Your task to perform on an android device: snooze an email in the gmail app Image 0: 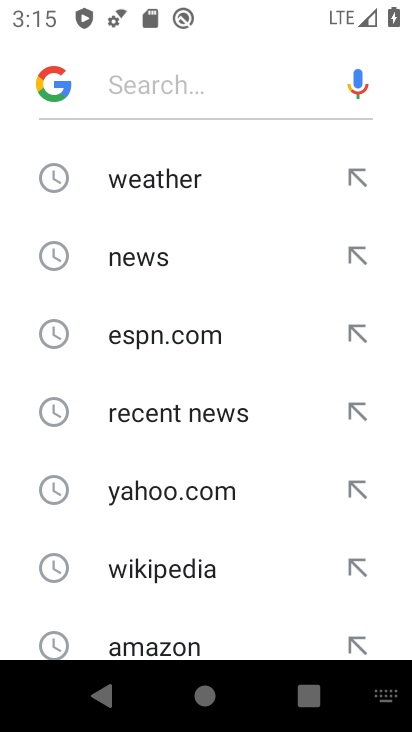
Step 0: press home button
Your task to perform on an android device: snooze an email in the gmail app Image 1: 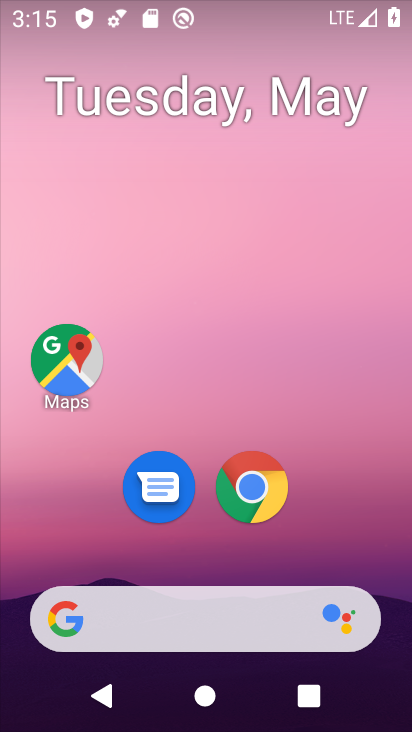
Step 1: drag from (350, 502) to (313, 107)
Your task to perform on an android device: snooze an email in the gmail app Image 2: 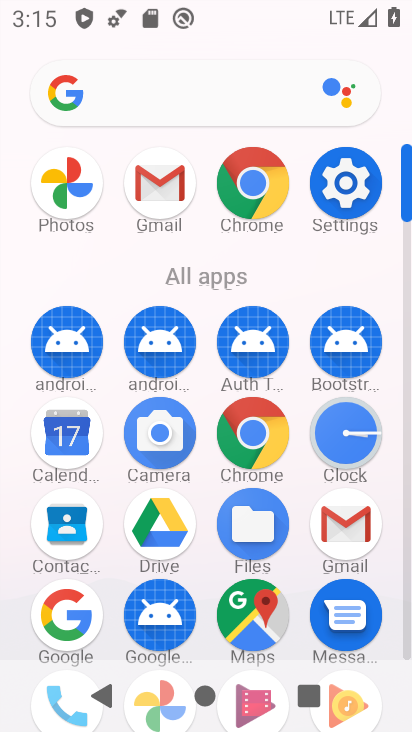
Step 2: click (168, 188)
Your task to perform on an android device: snooze an email in the gmail app Image 3: 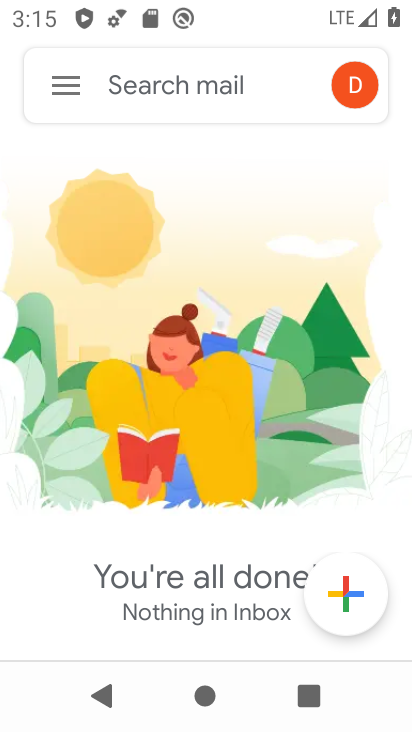
Step 3: click (64, 78)
Your task to perform on an android device: snooze an email in the gmail app Image 4: 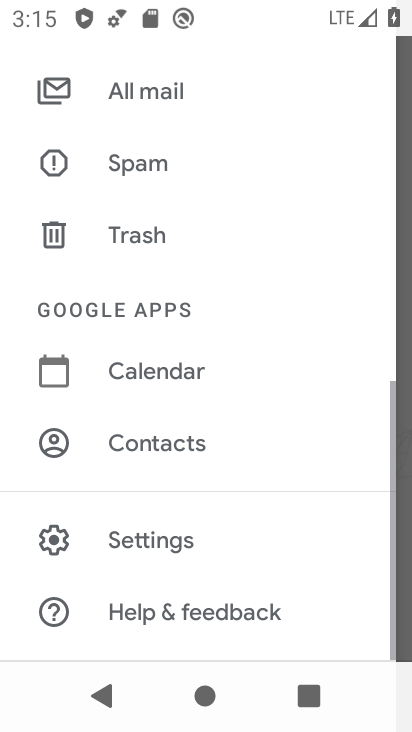
Step 4: drag from (251, 548) to (315, 571)
Your task to perform on an android device: snooze an email in the gmail app Image 5: 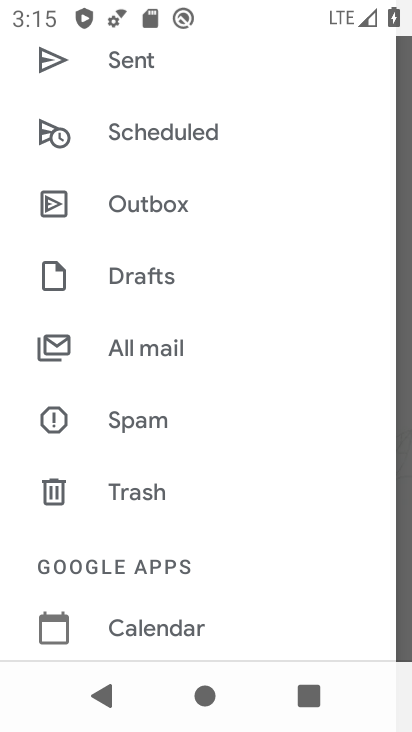
Step 5: drag from (276, 324) to (258, 512)
Your task to perform on an android device: snooze an email in the gmail app Image 6: 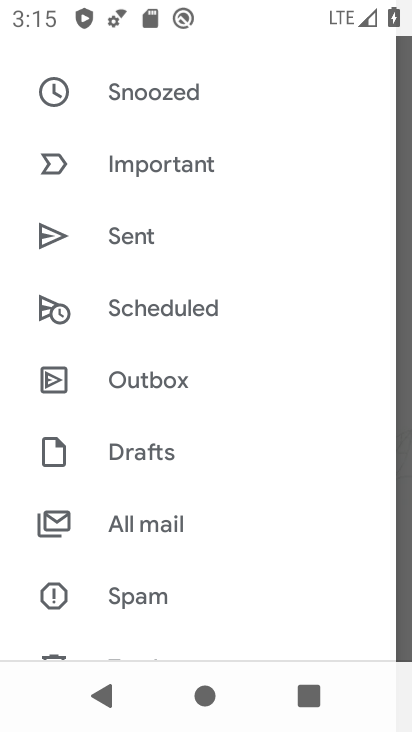
Step 6: click (169, 525)
Your task to perform on an android device: snooze an email in the gmail app Image 7: 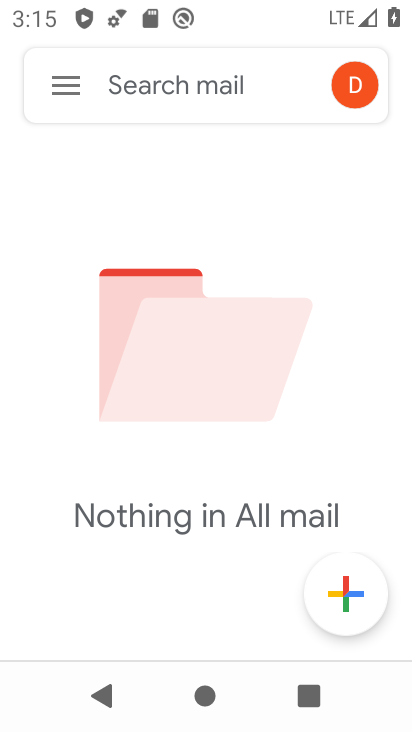
Step 7: task complete